Your task to perform on an android device: Go to battery settings Image 0: 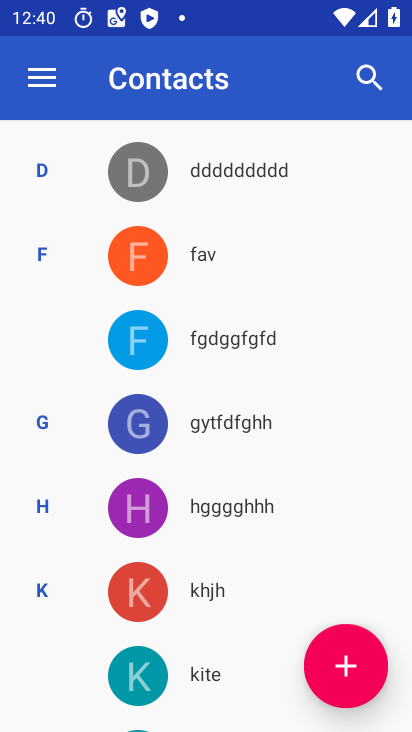
Step 0: press back button
Your task to perform on an android device: Go to battery settings Image 1: 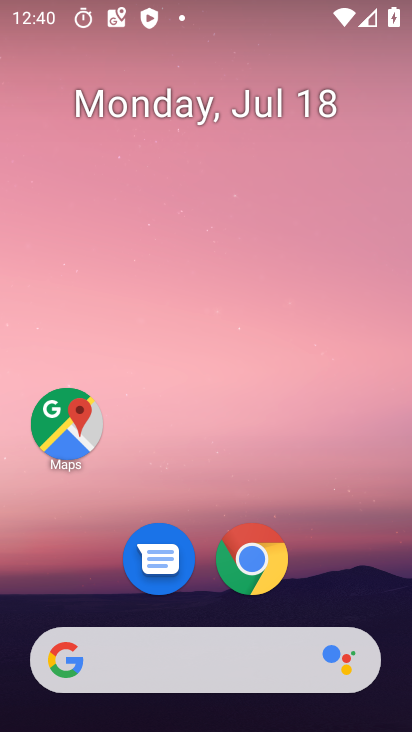
Step 1: drag from (178, 593) to (266, 7)
Your task to perform on an android device: Go to battery settings Image 2: 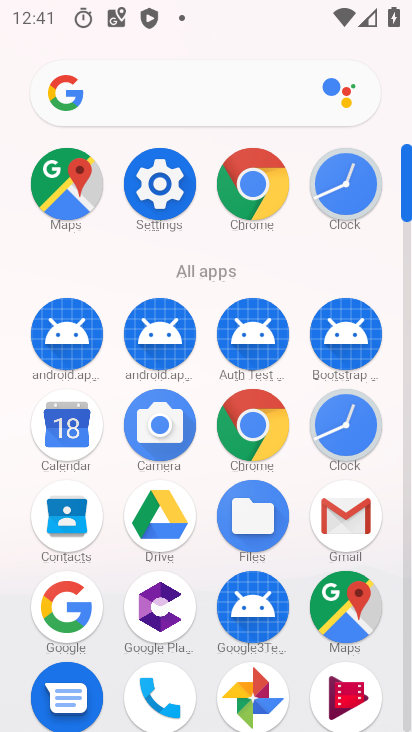
Step 2: click (160, 176)
Your task to perform on an android device: Go to battery settings Image 3: 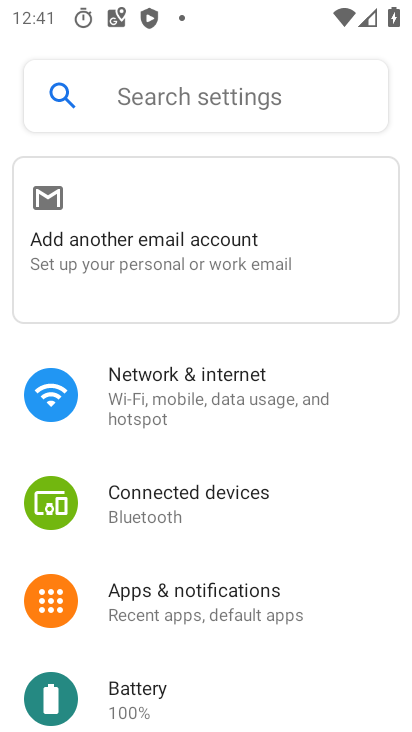
Step 3: click (149, 686)
Your task to perform on an android device: Go to battery settings Image 4: 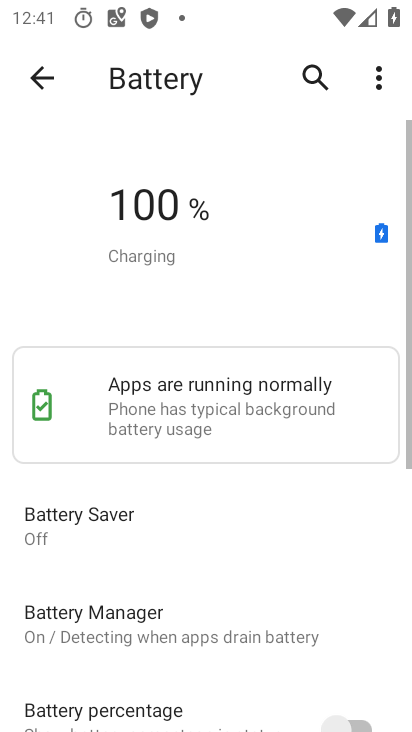
Step 4: task complete